Your task to perform on an android device: turn on priority inbox in the gmail app Image 0: 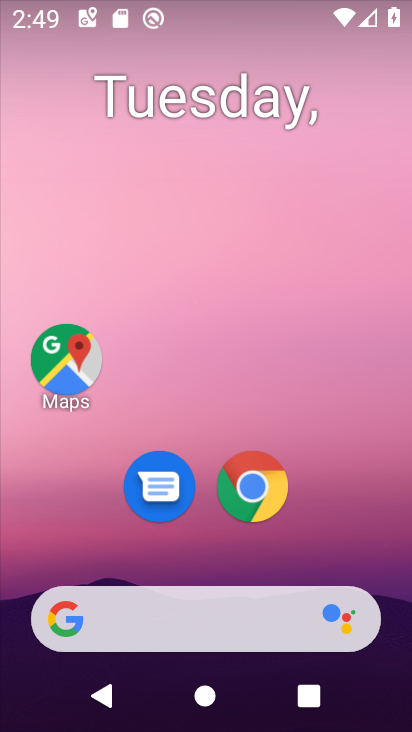
Step 0: drag from (219, 557) to (262, 46)
Your task to perform on an android device: turn on priority inbox in the gmail app Image 1: 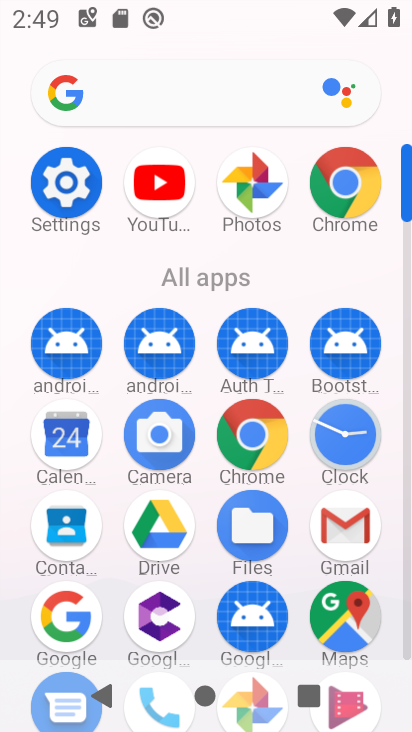
Step 1: click (344, 518)
Your task to perform on an android device: turn on priority inbox in the gmail app Image 2: 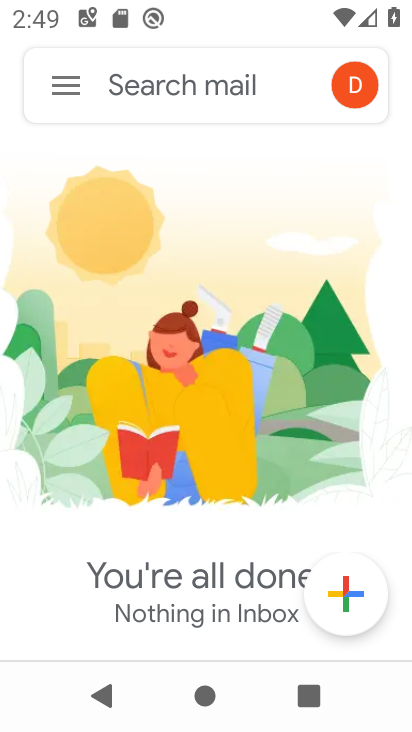
Step 2: click (67, 88)
Your task to perform on an android device: turn on priority inbox in the gmail app Image 3: 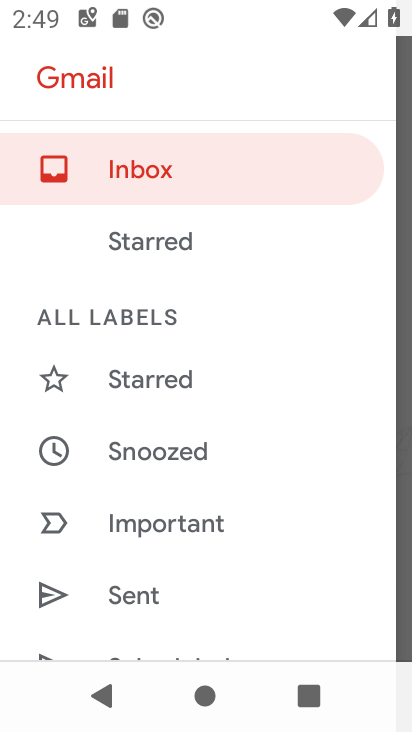
Step 3: drag from (157, 557) to (165, 243)
Your task to perform on an android device: turn on priority inbox in the gmail app Image 4: 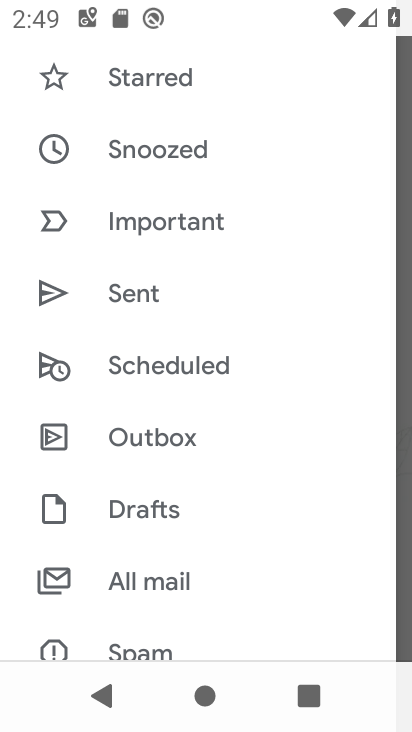
Step 4: drag from (164, 563) to (197, 186)
Your task to perform on an android device: turn on priority inbox in the gmail app Image 5: 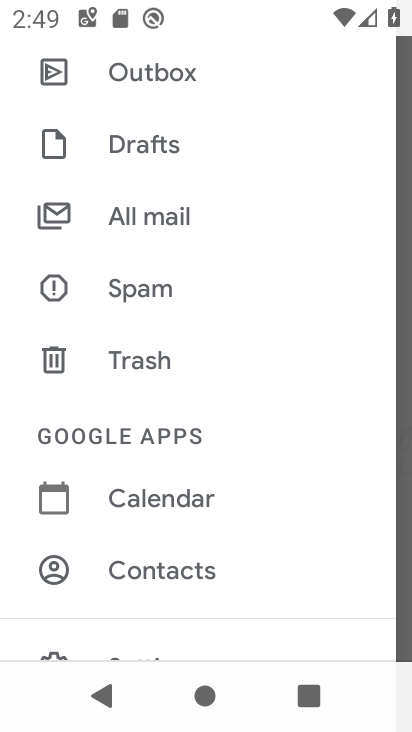
Step 5: drag from (156, 532) to (181, 81)
Your task to perform on an android device: turn on priority inbox in the gmail app Image 6: 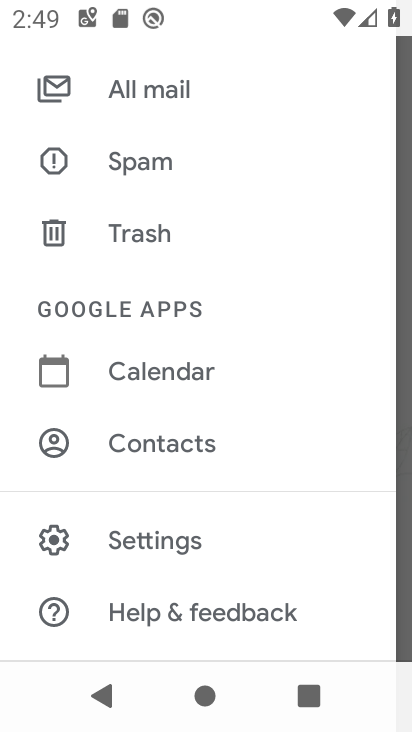
Step 6: click (220, 529)
Your task to perform on an android device: turn on priority inbox in the gmail app Image 7: 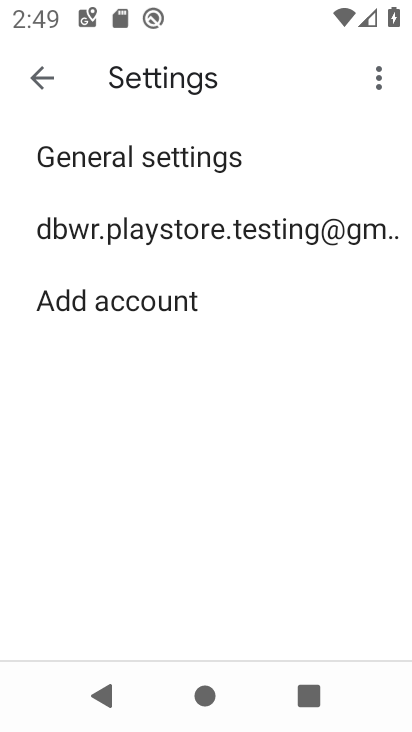
Step 7: click (199, 233)
Your task to perform on an android device: turn on priority inbox in the gmail app Image 8: 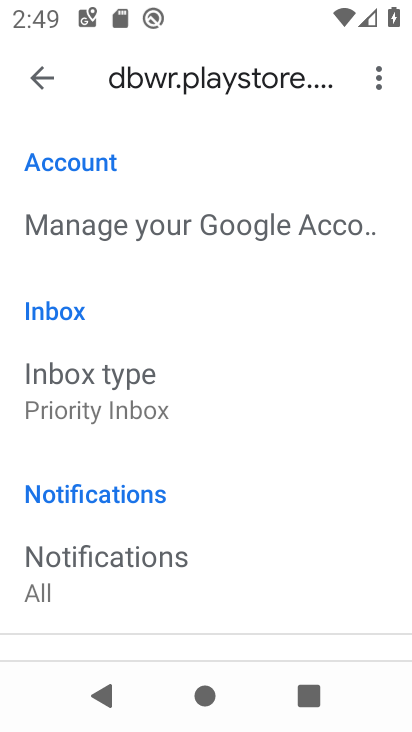
Step 8: click (153, 394)
Your task to perform on an android device: turn on priority inbox in the gmail app Image 9: 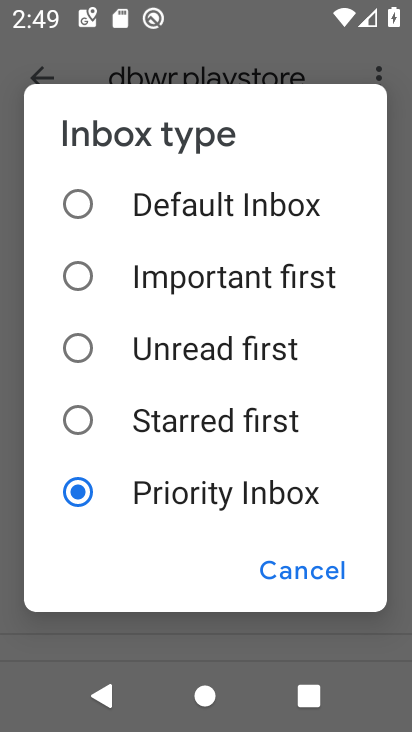
Step 9: task complete